Your task to perform on an android device: turn off notifications in google photos Image 0: 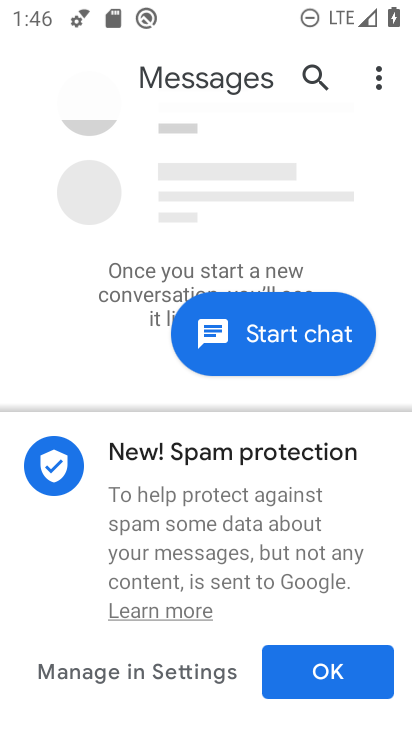
Step 0: press home button
Your task to perform on an android device: turn off notifications in google photos Image 1: 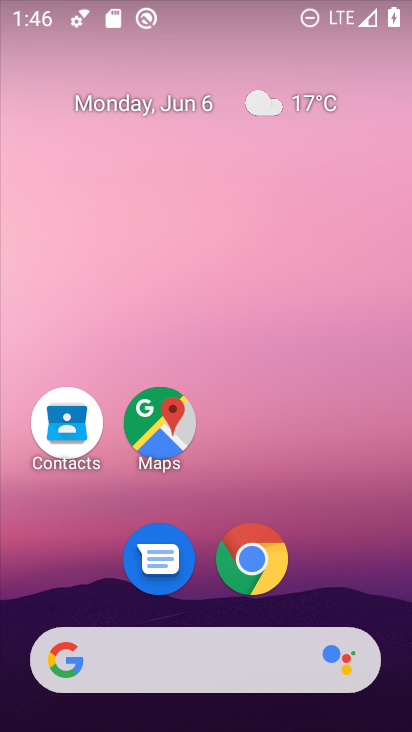
Step 1: drag from (255, 635) to (278, 261)
Your task to perform on an android device: turn off notifications in google photos Image 2: 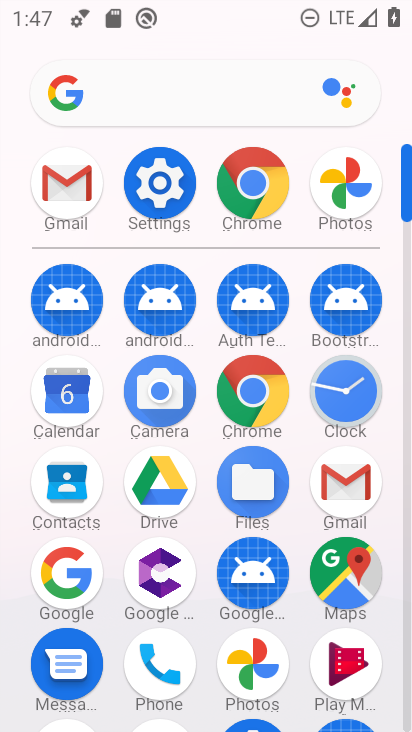
Step 2: click (248, 651)
Your task to perform on an android device: turn off notifications in google photos Image 3: 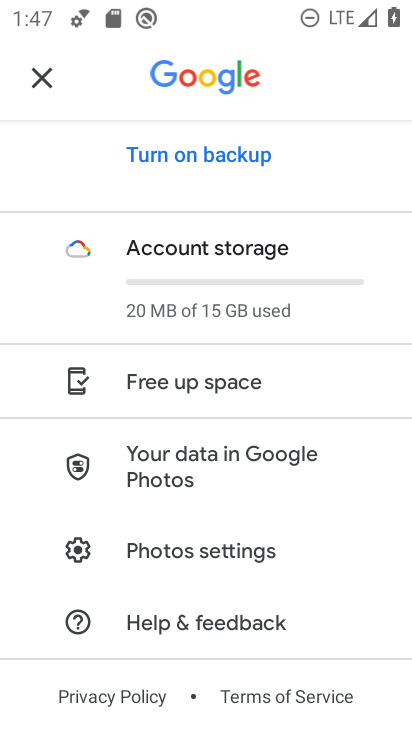
Step 3: click (194, 565)
Your task to perform on an android device: turn off notifications in google photos Image 4: 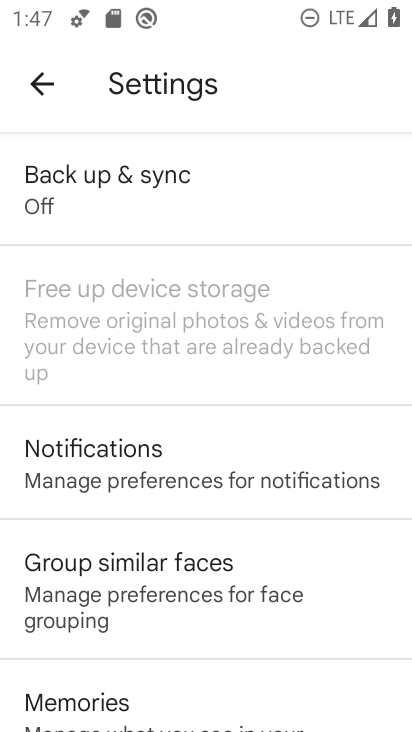
Step 4: click (132, 454)
Your task to perform on an android device: turn off notifications in google photos Image 5: 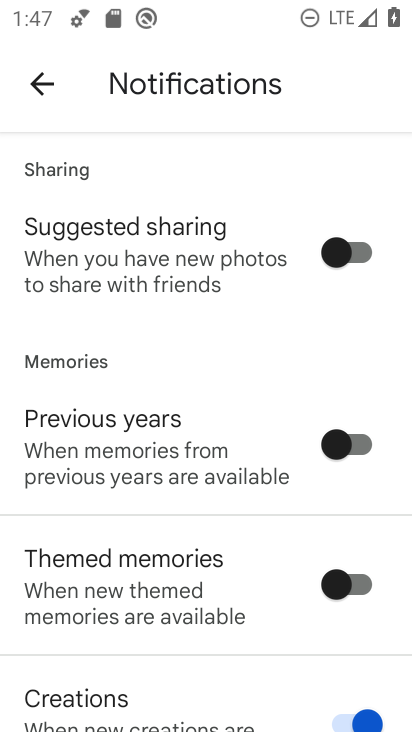
Step 5: drag from (124, 593) to (203, 71)
Your task to perform on an android device: turn off notifications in google photos Image 6: 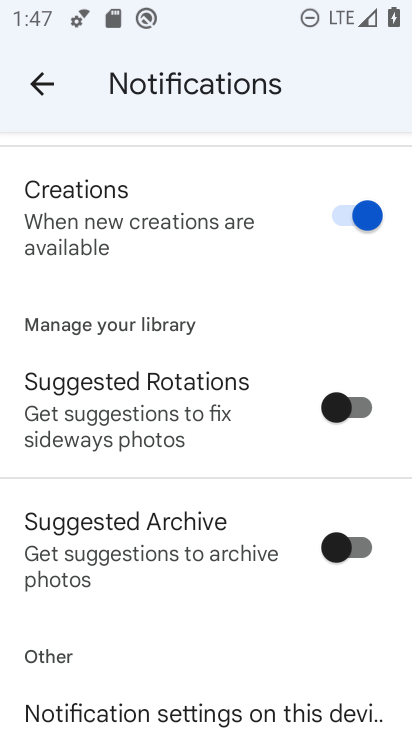
Step 6: drag from (195, 606) to (255, 176)
Your task to perform on an android device: turn off notifications in google photos Image 7: 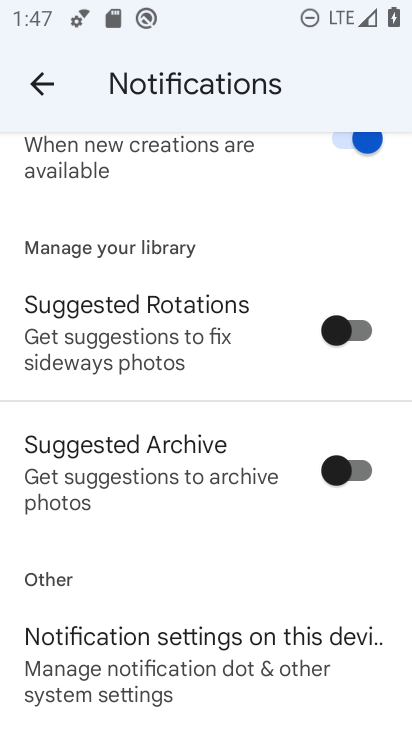
Step 7: click (227, 648)
Your task to perform on an android device: turn off notifications in google photos Image 8: 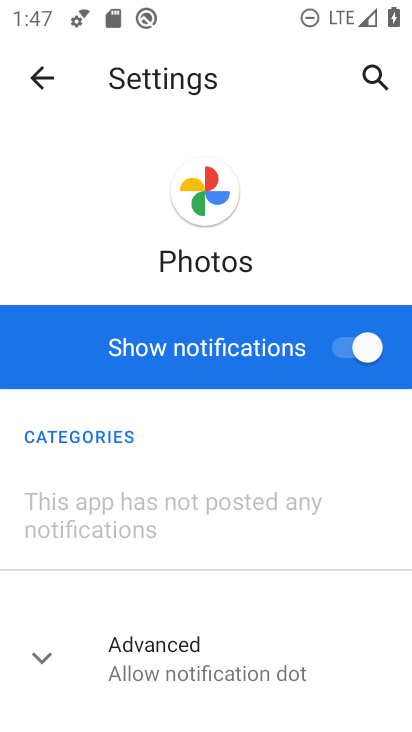
Step 8: drag from (223, 644) to (324, 191)
Your task to perform on an android device: turn off notifications in google photos Image 9: 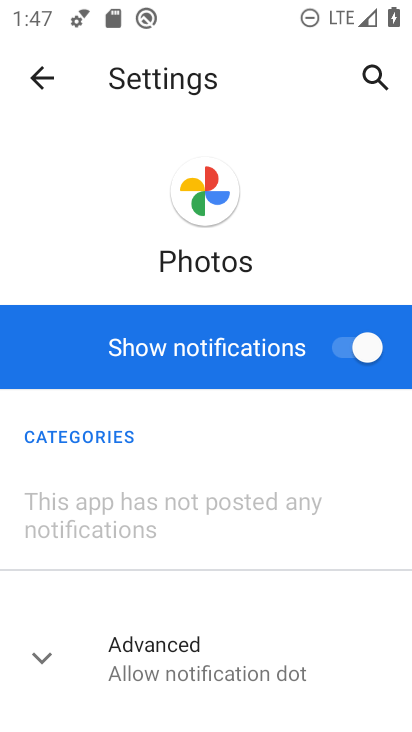
Step 9: click (340, 353)
Your task to perform on an android device: turn off notifications in google photos Image 10: 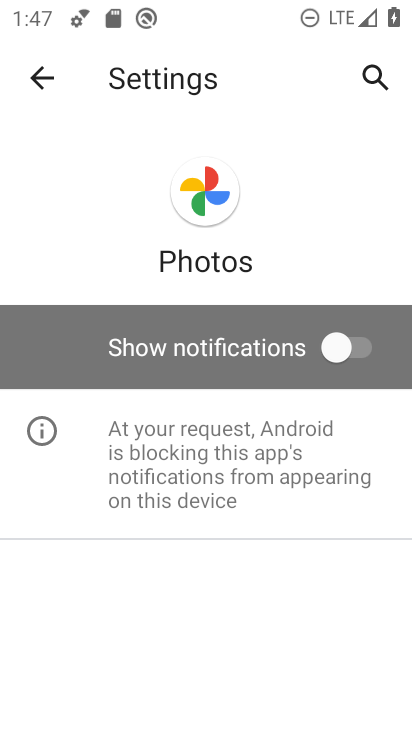
Step 10: task complete